Your task to perform on an android device: check battery use Image 0: 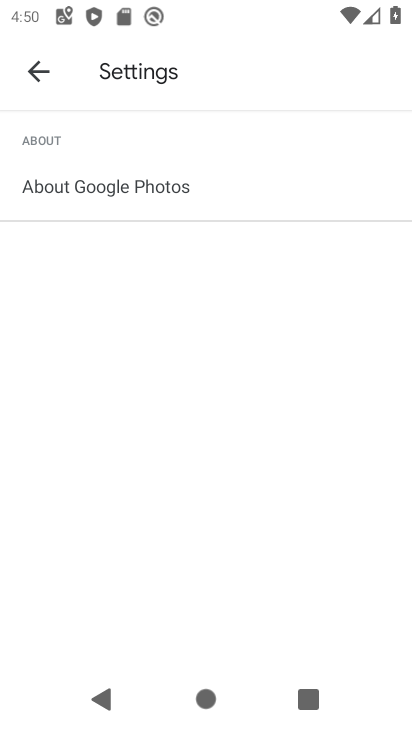
Step 0: press home button
Your task to perform on an android device: check battery use Image 1: 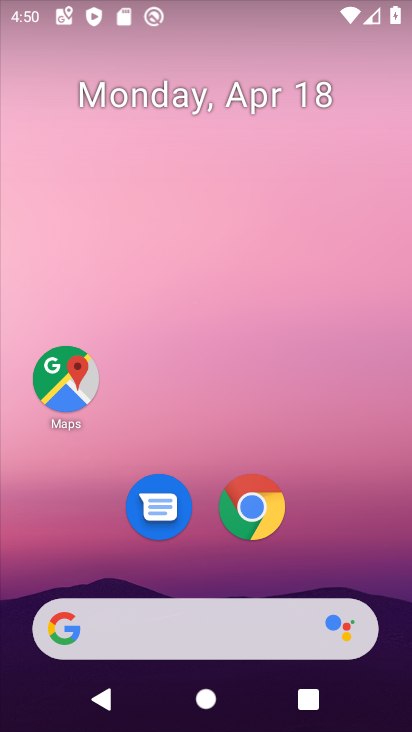
Step 1: drag from (338, 486) to (371, 7)
Your task to perform on an android device: check battery use Image 2: 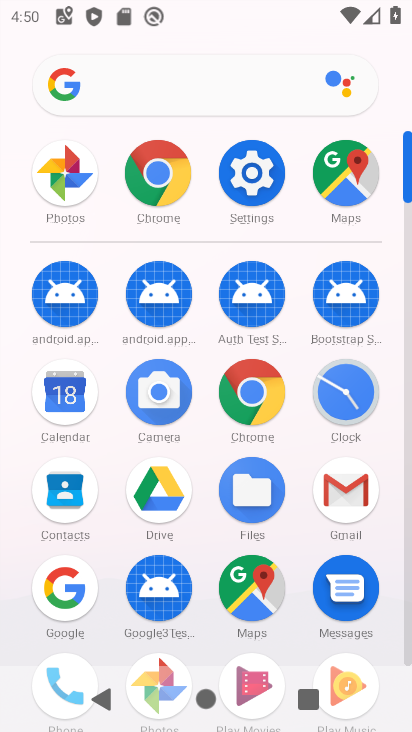
Step 2: drag from (285, 554) to (301, 192)
Your task to perform on an android device: check battery use Image 3: 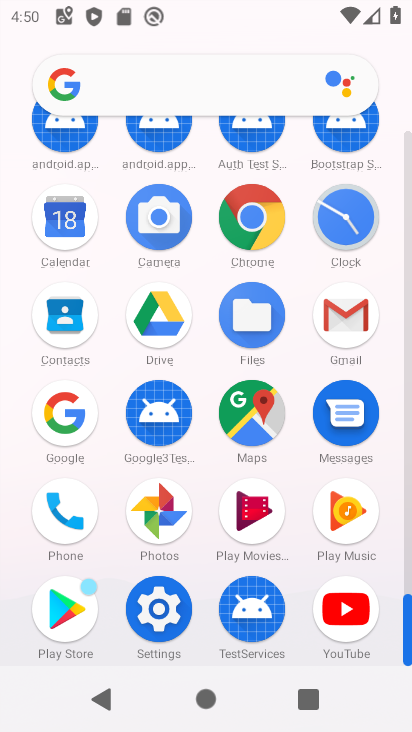
Step 3: drag from (305, 319) to (318, 696)
Your task to perform on an android device: check battery use Image 4: 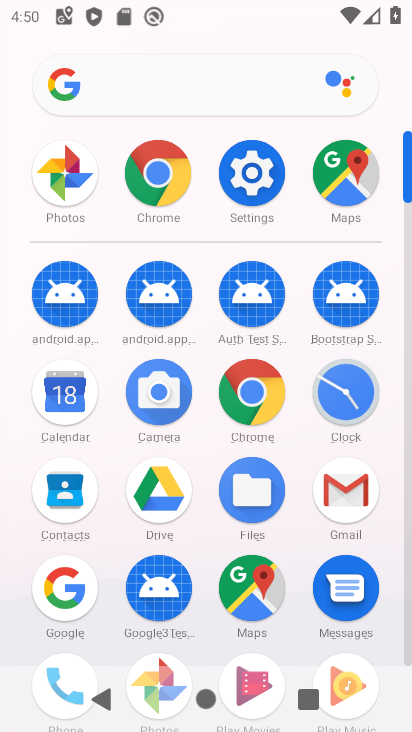
Step 4: drag from (288, 454) to (327, 171)
Your task to perform on an android device: check battery use Image 5: 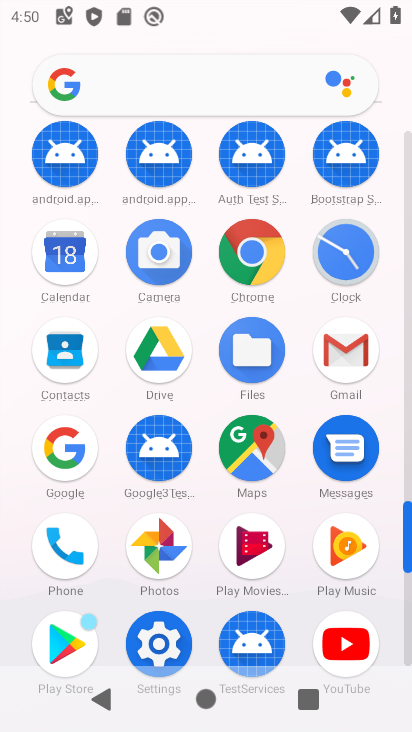
Step 5: click (170, 648)
Your task to perform on an android device: check battery use Image 6: 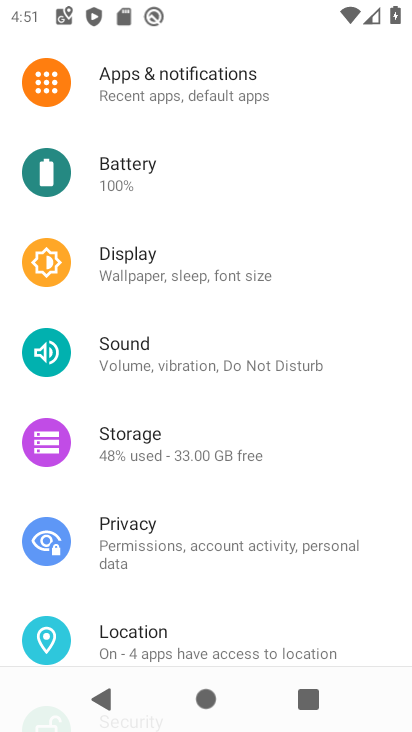
Step 6: drag from (314, 266) to (278, 652)
Your task to perform on an android device: check battery use Image 7: 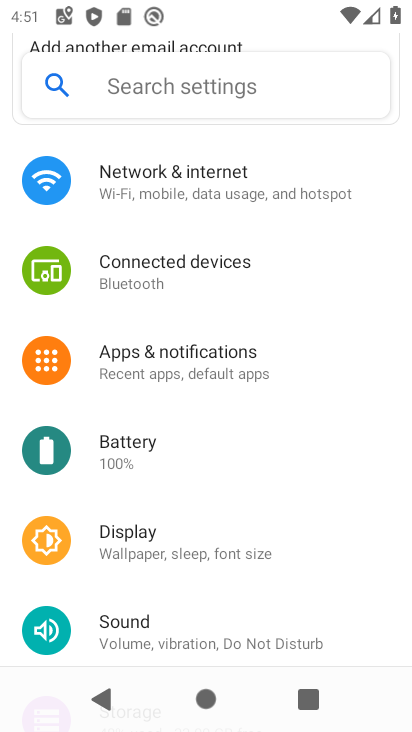
Step 7: click (182, 440)
Your task to perform on an android device: check battery use Image 8: 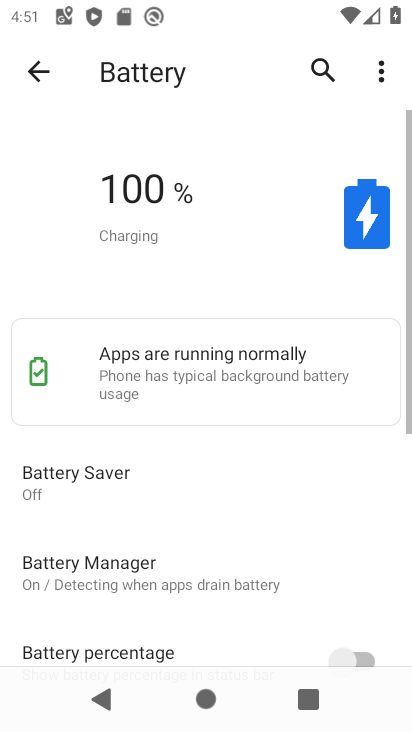
Step 8: task complete